Your task to perform on an android device: Go to Maps Image 0: 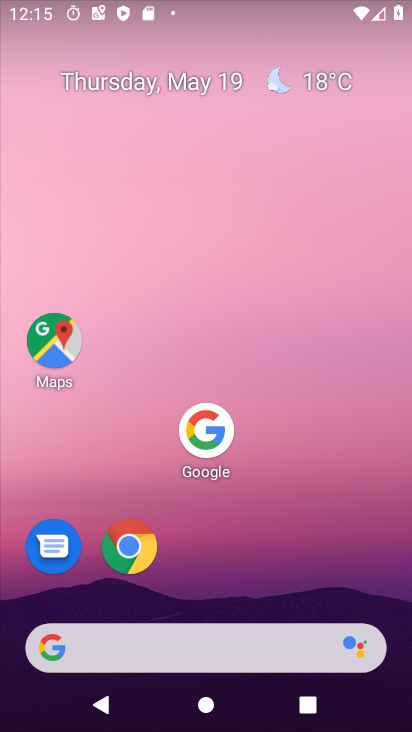
Step 0: click (57, 343)
Your task to perform on an android device: Go to Maps Image 1: 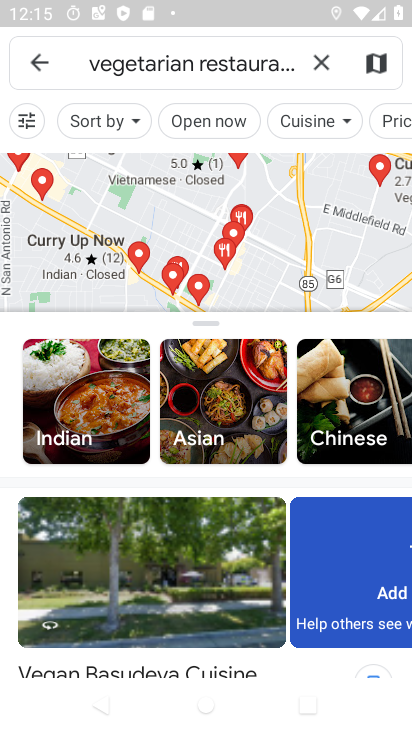
Step 1: task complete